Your task to perform on an android device: Open Chrome and go to the settings page Image 0: 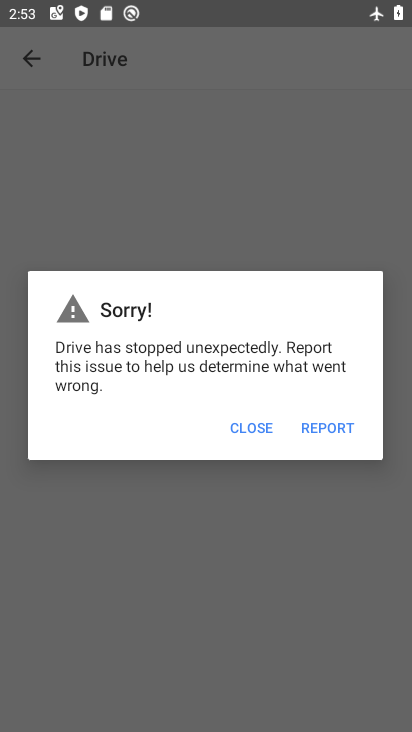
Step 0: press back button
Your task to perform on an android device: Open Chrome and go to the settings page Image 1: 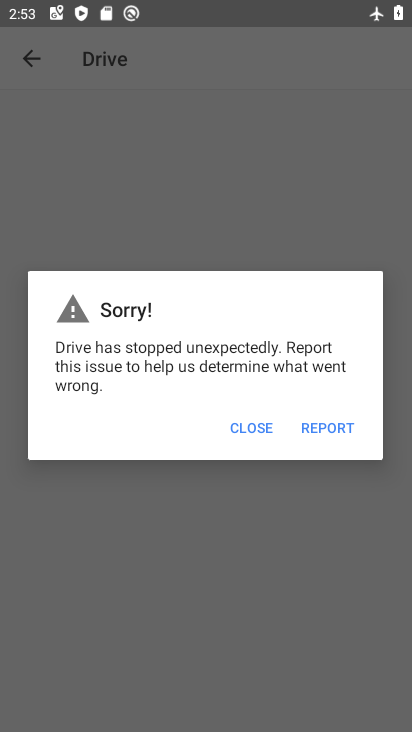
Step 1: press home button
Your task to perform on an android device: Open Chrome and go to the settings page Image 2: 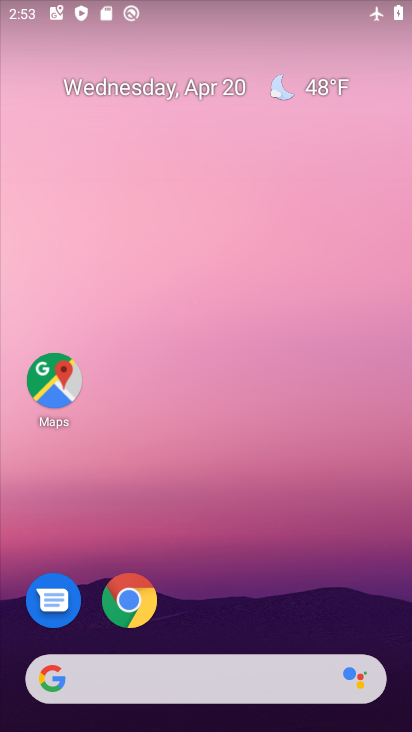
Step 2: drag from (194, 490) to (220, 67)
Your task to perform on an android device: Open Chrome and go to the settings page Image 3: 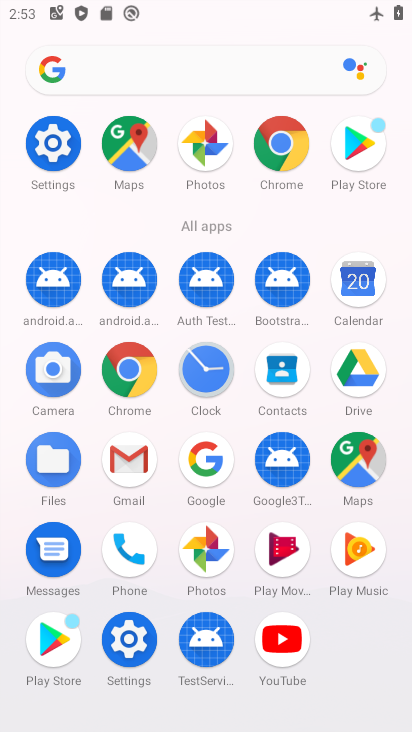
Step 3: click (259, 150)
Your task to perform on an android device: Open Chrome and go to the settings page Image 4: 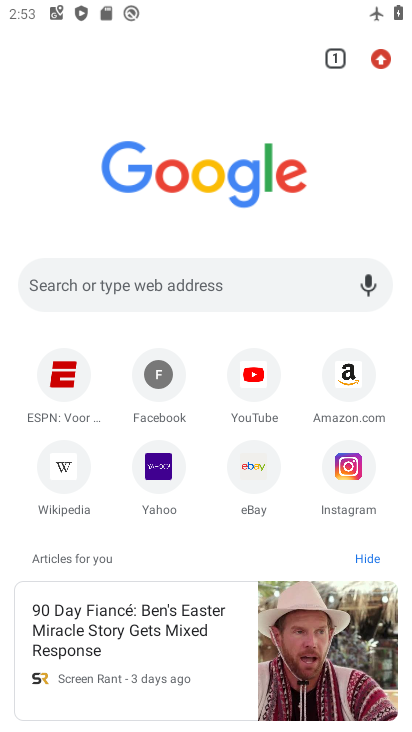
Step 4: click (384, 45)
Your task to perform on an android device: Open Chrome and go to the settings page Image 5: 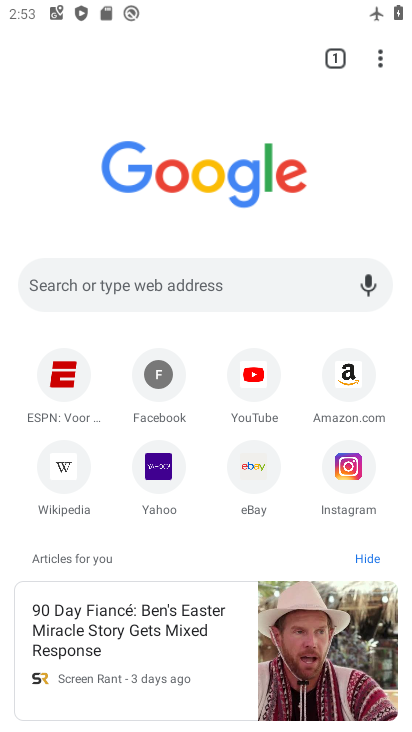
Step 5: task complete